Your task to perform on an android device: Set the phone to "Do not disturb". Image 0: 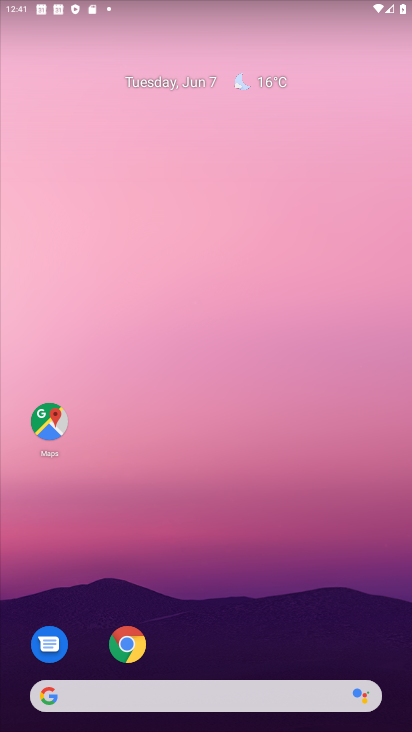
Step 0: drag from (208, 650) to (177, 318)
Your task to perform on an android device: Set the phone to "Do not disturb". Image 1: 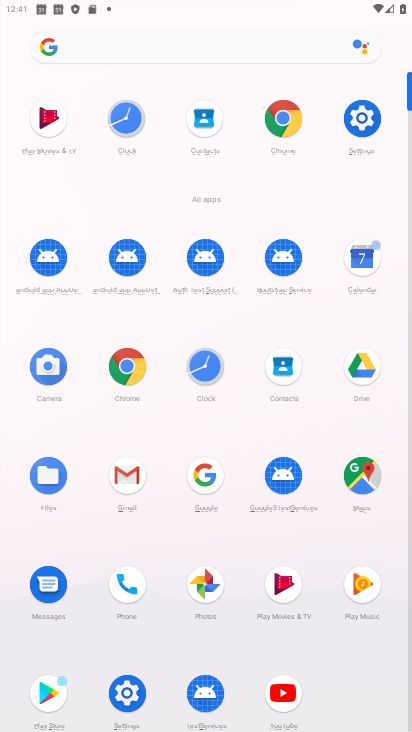
Step 1: click (367, 113)
Your task to perform on an android device: Set the phone to "Do not disturb". Image 2: 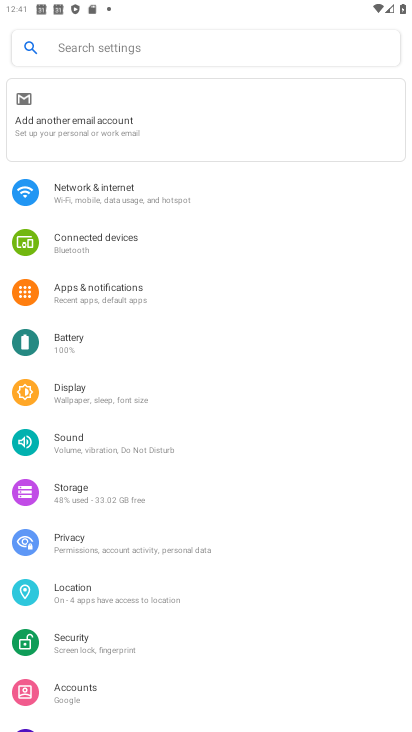
Step 2: click (96, 397)
Your task to perform on an android device: Set the phone to "Do not disturb". Image 3: 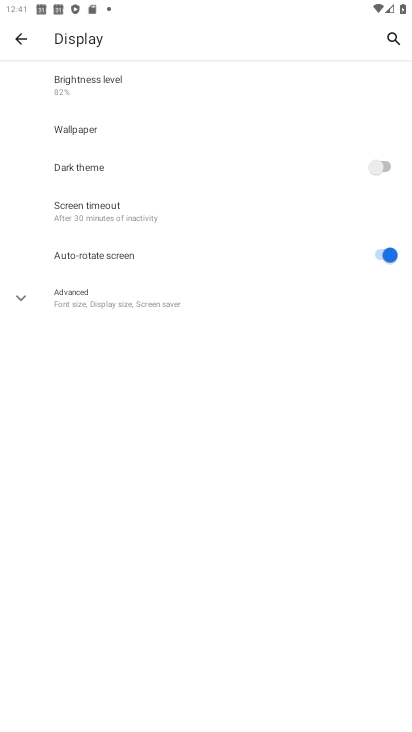
Step 3: click (79, 297)
Your task to perform on an android device: Set the phone to "Do not disturb". Image 4: 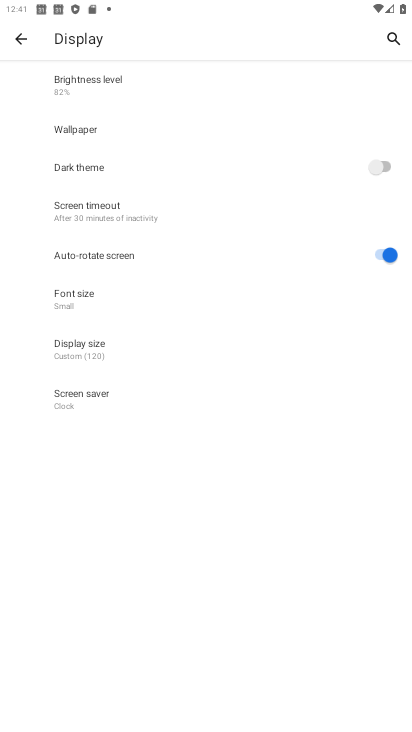
Step 4: drag from (207, 2) to (333, 602)
Your task to perform on an android device: Set the phone to "Do not disturb". Image 5: 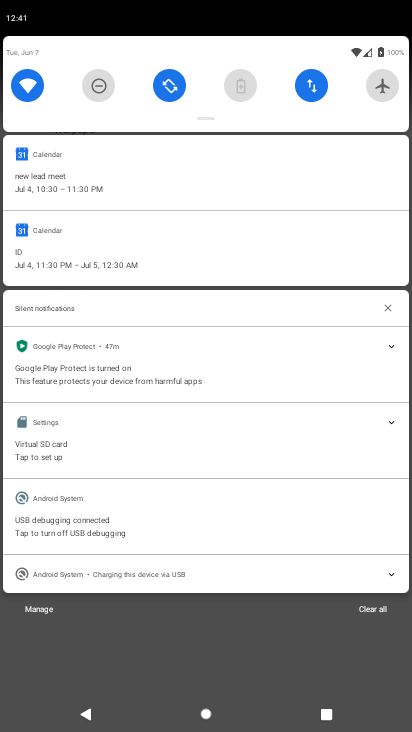
Step 5: click (102, 95)
Your task to perform on an android device: Set the phone to "Do not disturb". Image 6: 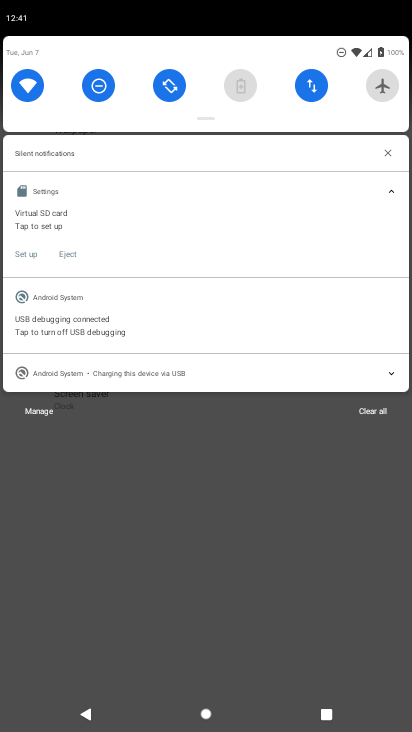
Step 6: task complete